Your task to perform on an android device: Open eBay Image 0: 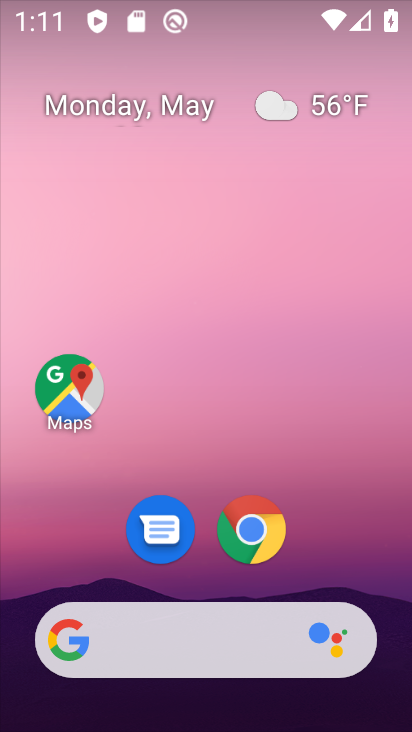
Step 0: click (255, 529)
Your task to perform on an android device: Open eBay Image 1: 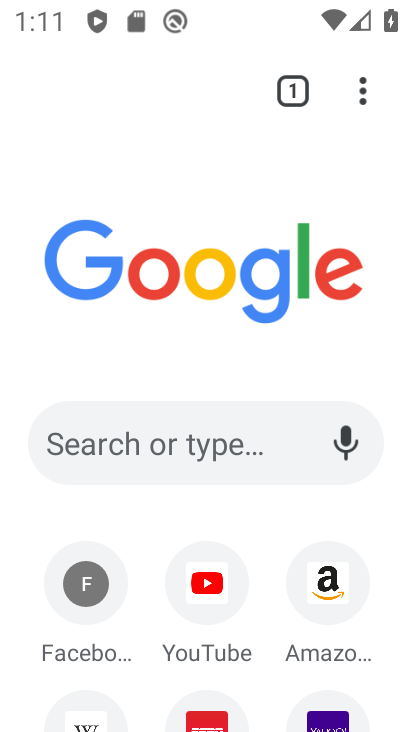
Step 1: click (167, 442)
Your task to perform on an android device: Open eBay Image 2: 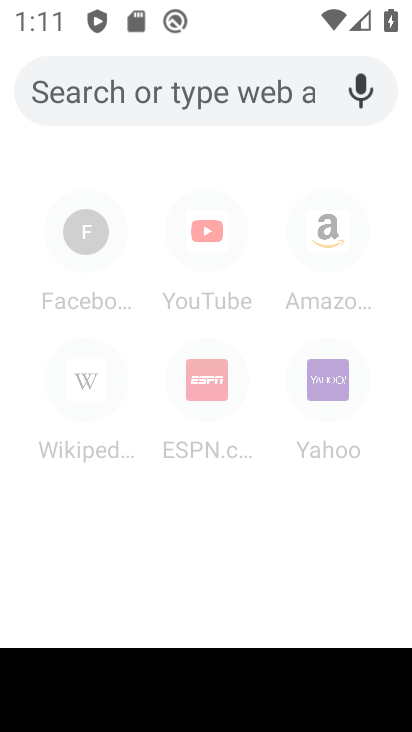
Step 2: type "ebay"
Your task to perform on an android device: Open eBay Image 3: 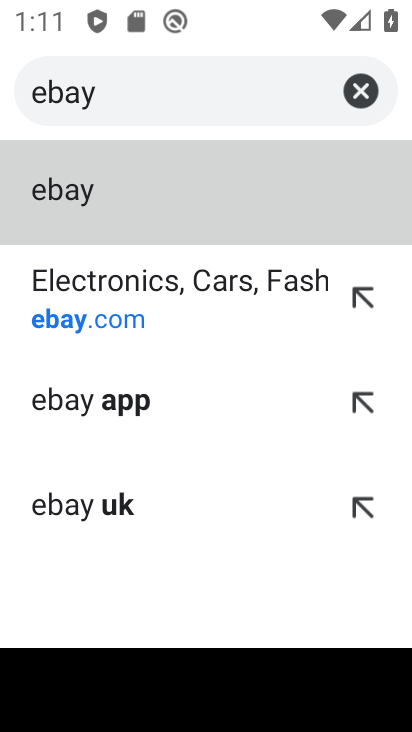
Step 3: click (90, 216)
Your task to perform on an android device: Open eBay Image 4: 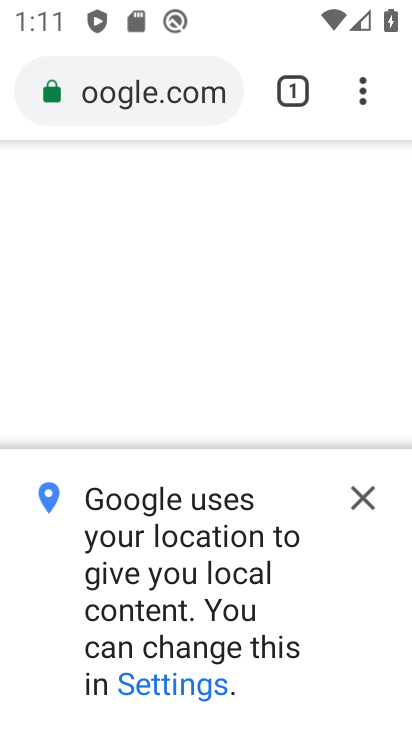
Step 4: click (367, 497)
Your task to perform on an android device: Open eBay Image 5: 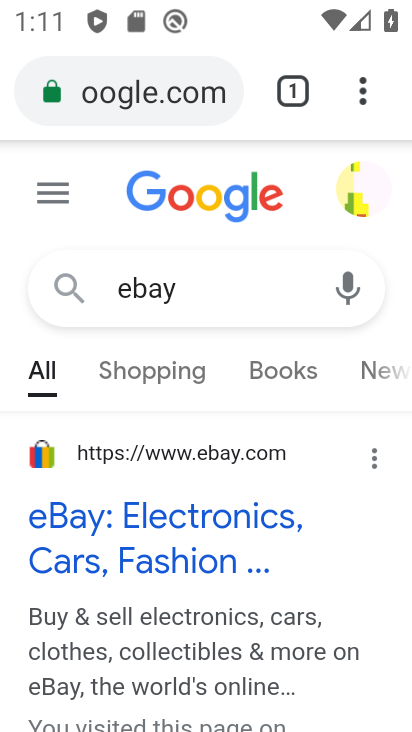
Step 5: click (84, 525)
Your task to perform on an android device: Open eBay Image 6: 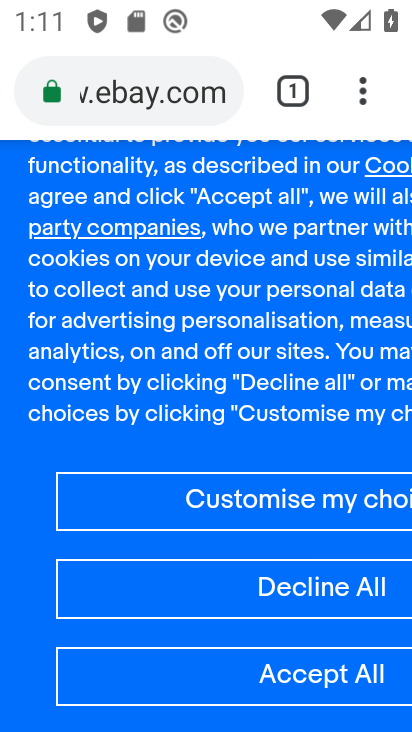
Step 6: task complete